Your task to perform on an android device: clear history in the chrome app Image 0: 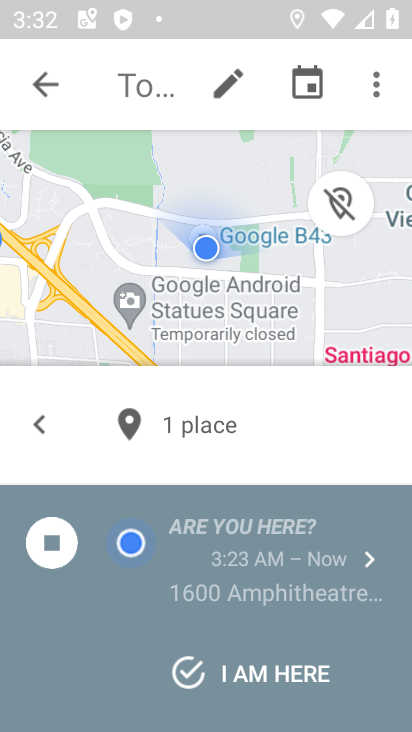
Step 0: press home button
Your task to perform on an android device: clear history in the chrome app Image 1: 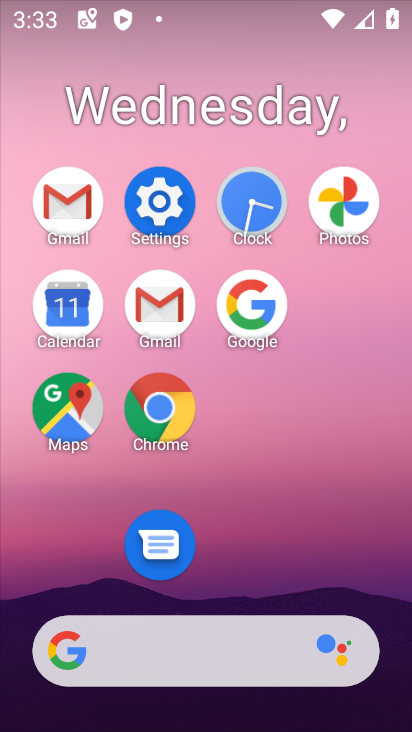
Step 1: click (153, 461)
Your task to perform on an android device: clear history in the chrome app Image 2: 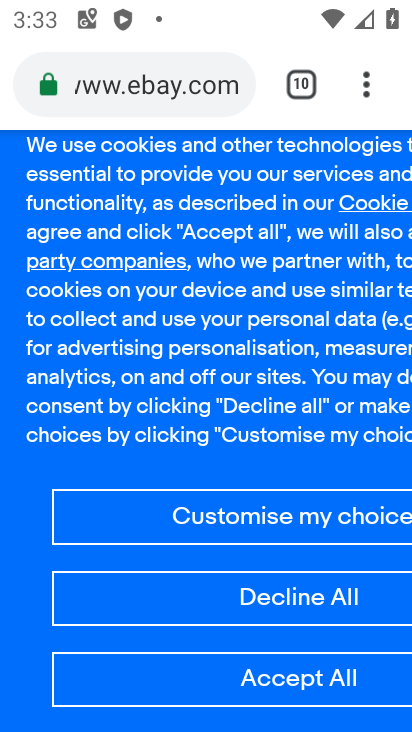
Step 2: click (372, 78)
Your task to perform on an android device: clear history in the chrome app Image 3: 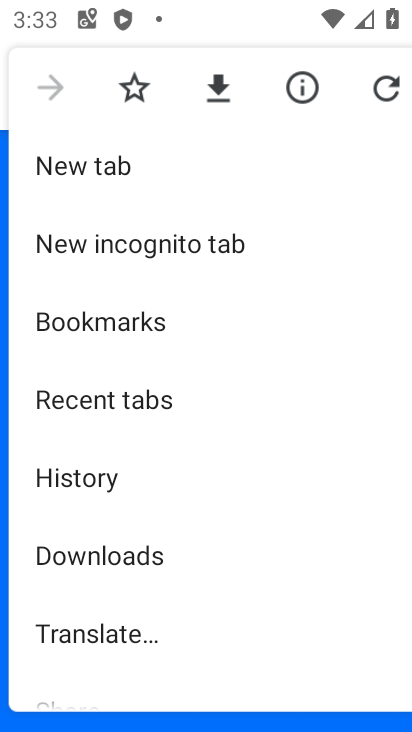
Step 3: click (116, 481)
Your task to perform on an android device: clear history in the chrome app Image 4: 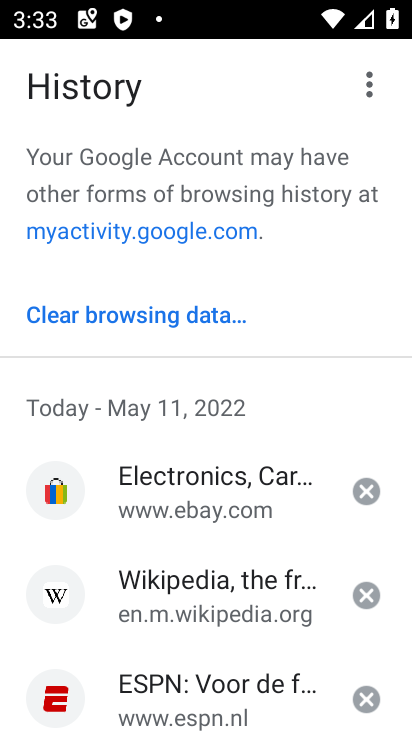
Step 4: click (168, 310)
Your task to perform on an android device: clear history in the chrome app Image 5: 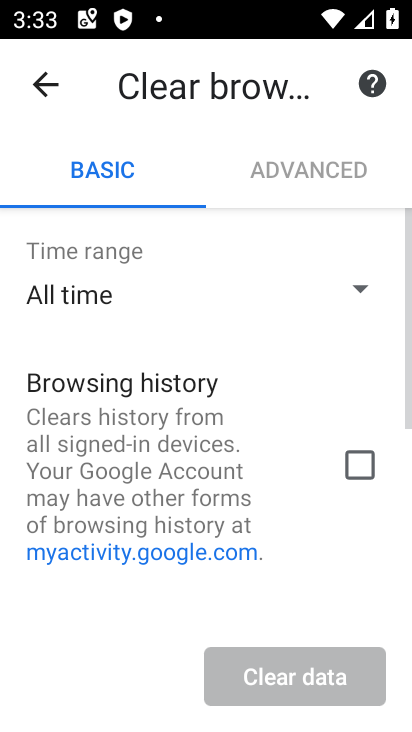
Step 5: click (339, 454)
Your task to perform on an android device: clear history in the chrome app Image 6: 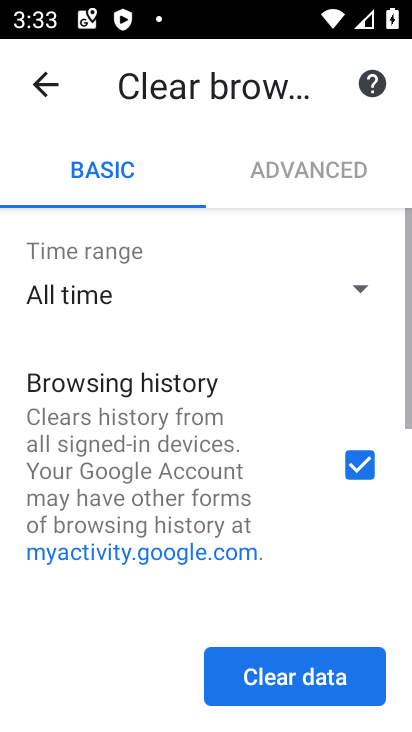
Step 6: click (341, 654)
Your task to perform on an android device: clear history in the chrome app Image 7: 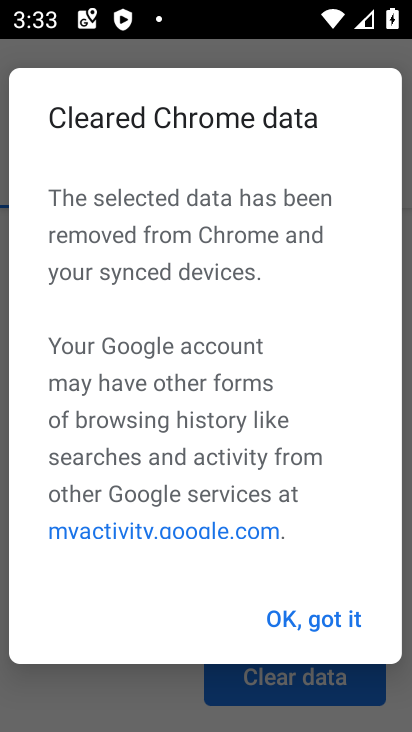
Step 7: click (350, 615)
Your task to perform on an android device: clear history in the chrome app Image 8: 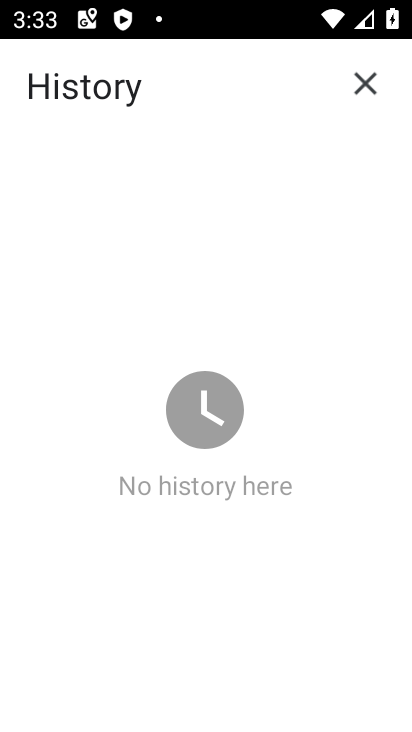
Step 8: task complete